Your task to perform on an android device: change notifications settings Image 0: 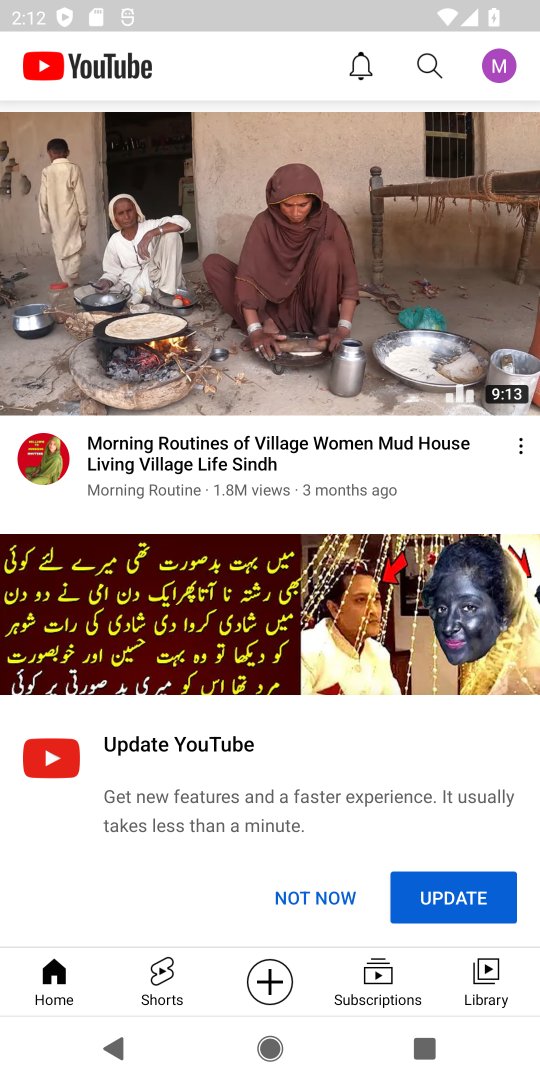
Step 0: press home button
Your task to perform on an android device: change notifications settings Image 1: 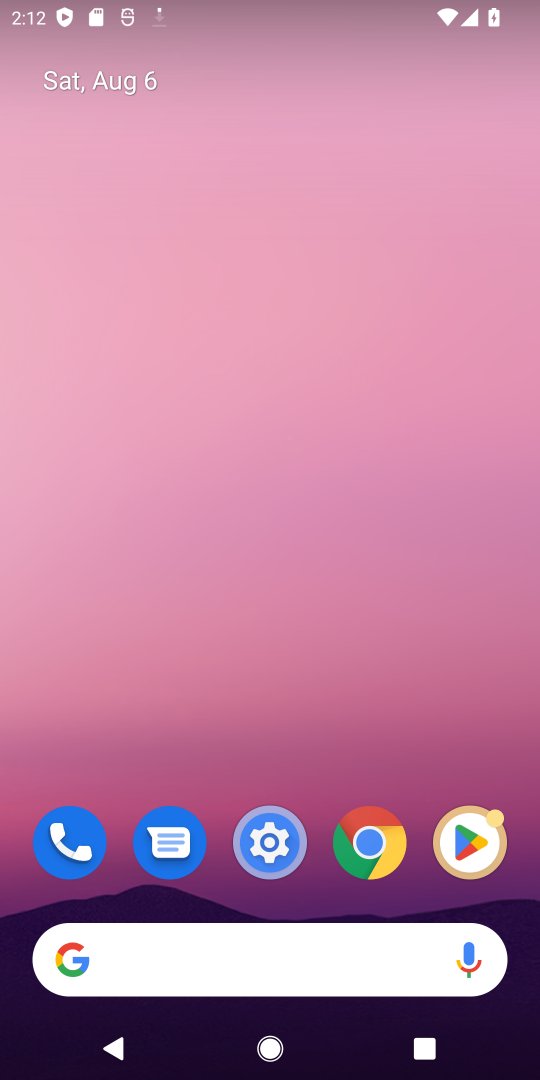
Step 1: drag from (262, 620) to (351, 8)
Your task to perform on an android device: change notifications settings Image 2: 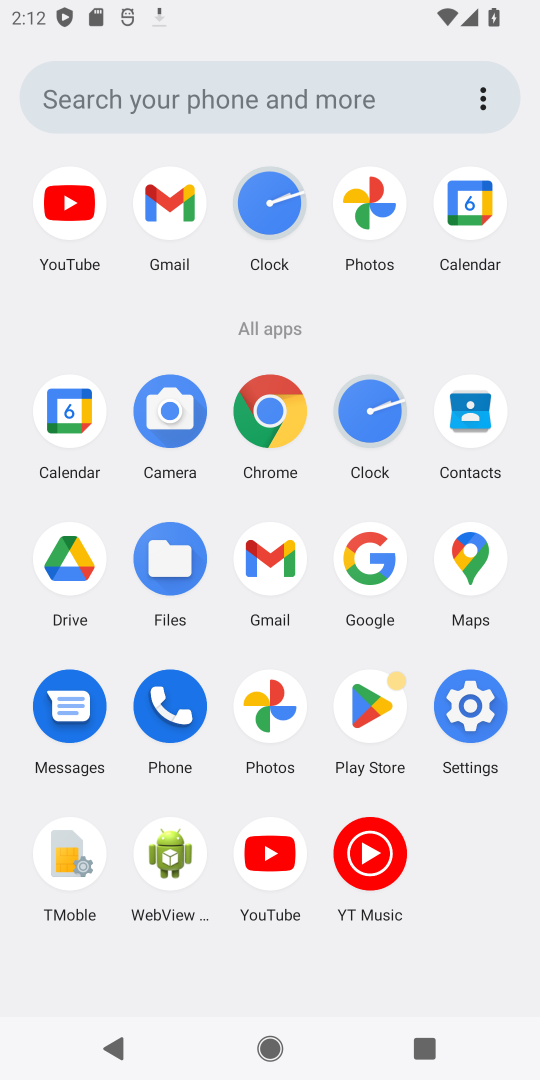
Step 2: click (464, 708)
Your task to perform on an android device: change notifications settings Image 3: 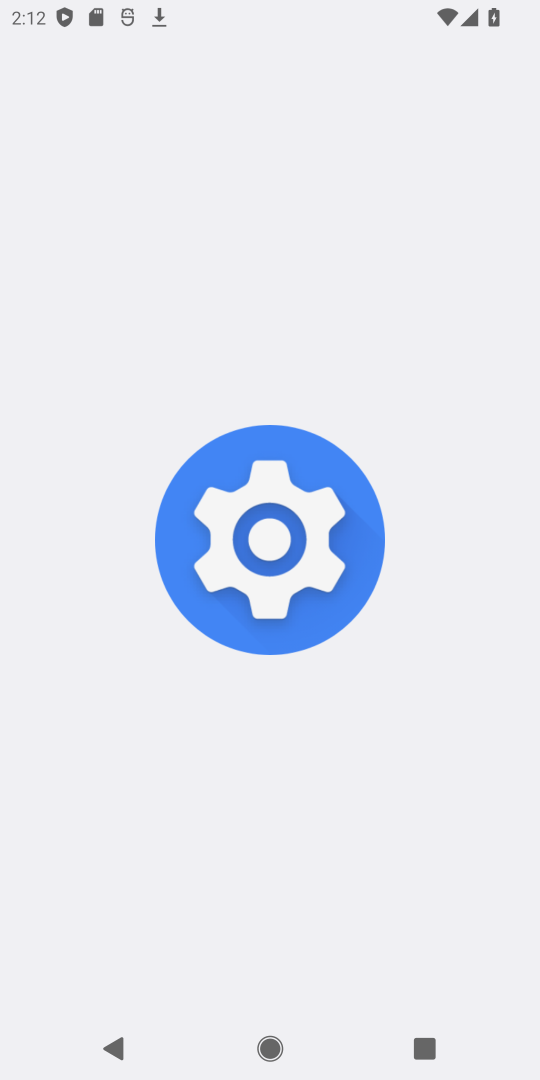
Step 3: click (451, 694)
Your task to perform on an android device: change notifications settings Image 4: 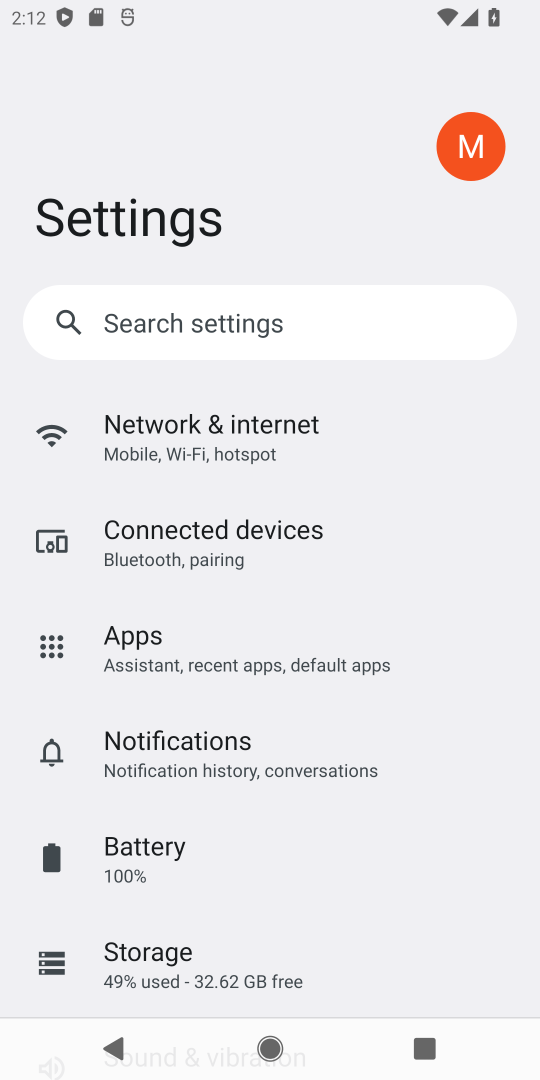
Step 4: click (227, 741)
Your task to perform on an android device: change notifications settings Image 5: 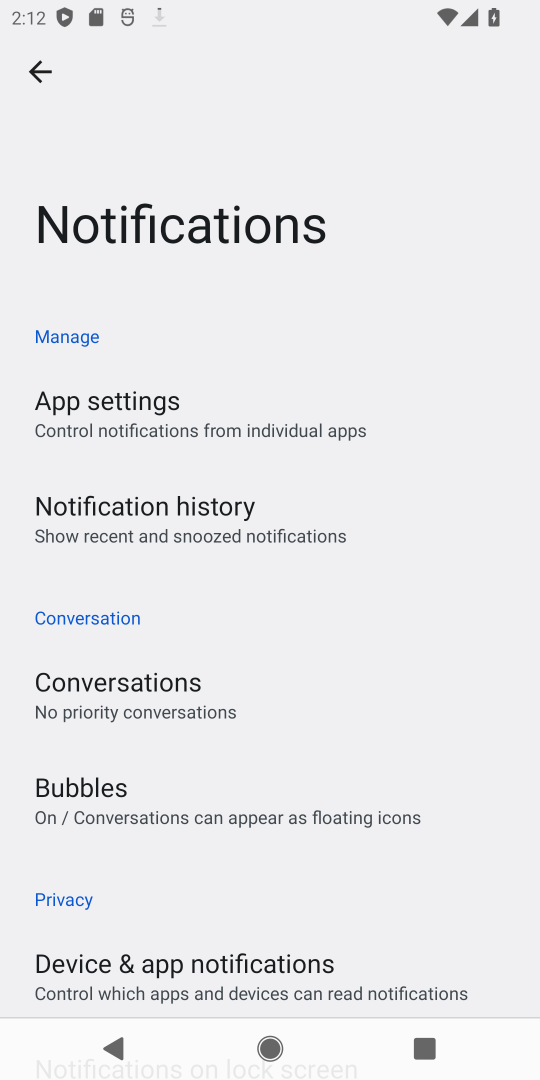
Step 5: drag from (273, 855) to (469, 217)
Your task to perform on an android device: change notifications settings Image 6: 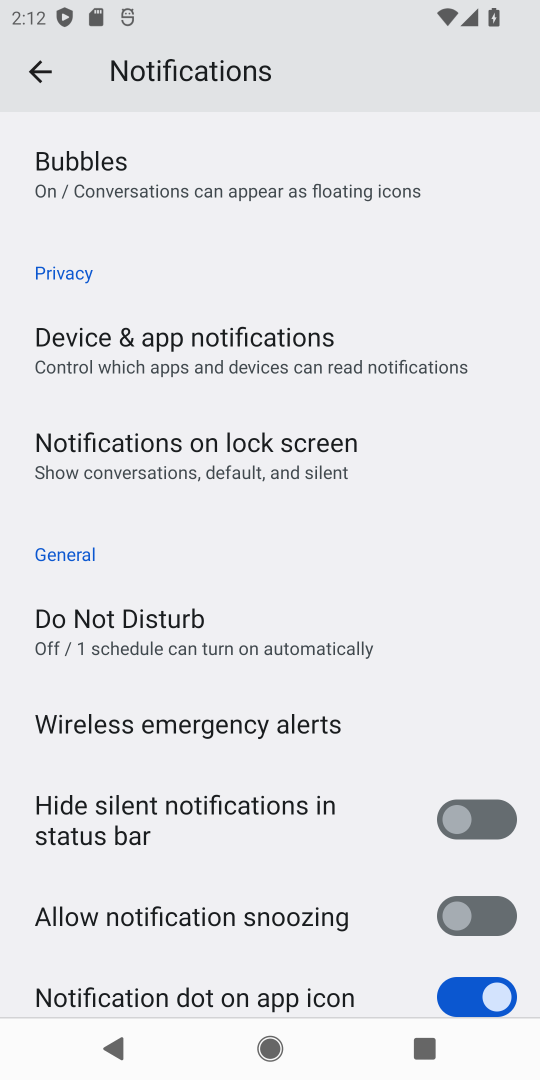
Step 6: drag from (231, 842) to (322, 114)
Your task to perform on an android device: change notifications settings Image 7: 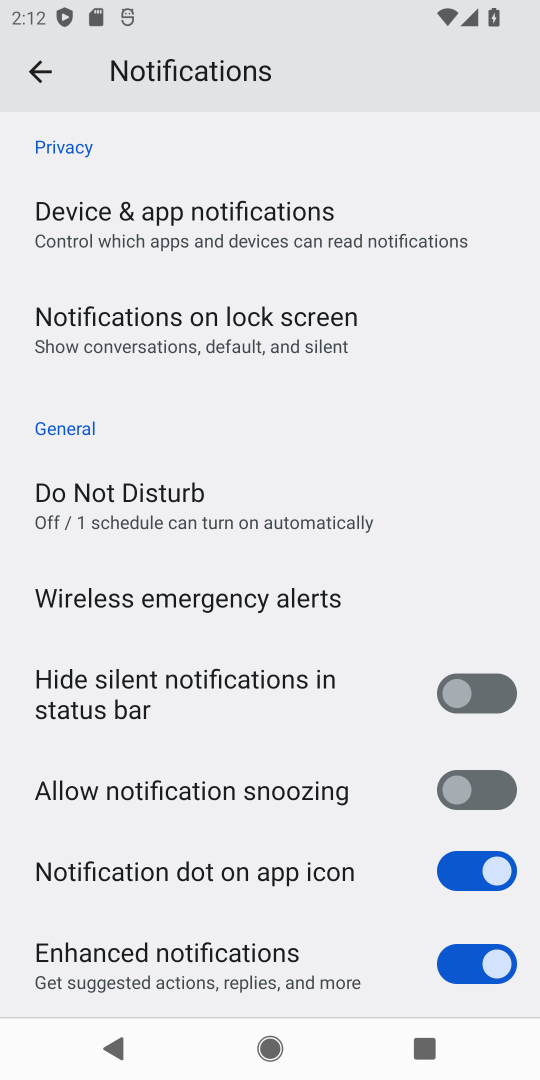
Step 7: click (250, 218)
Your task to perform on an android device: change notifications settings Image 8: 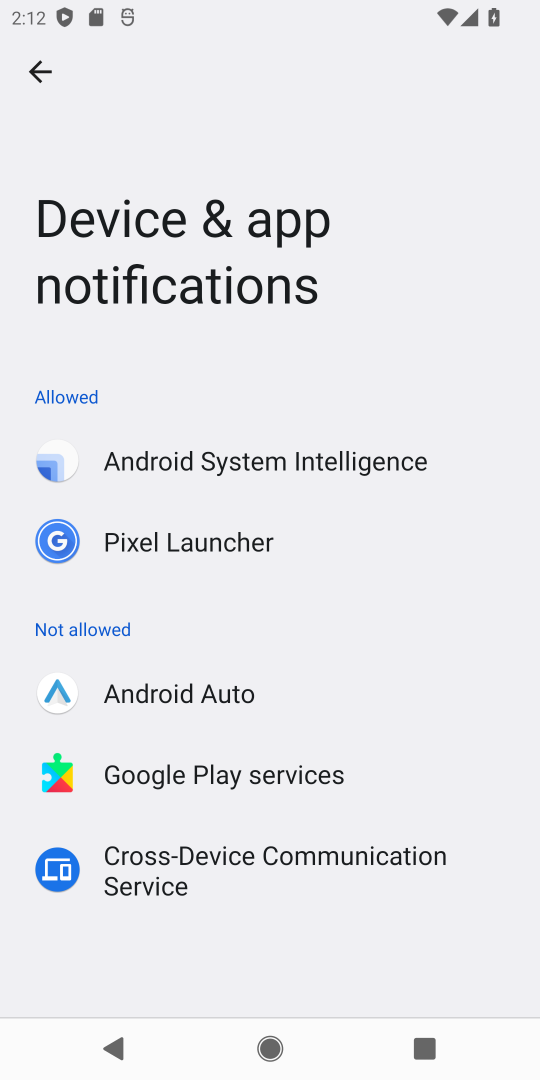
Step 8: drag from (290, 707) to (319, 132)
Your task to perform on an android device: change notifications settings Image 9: 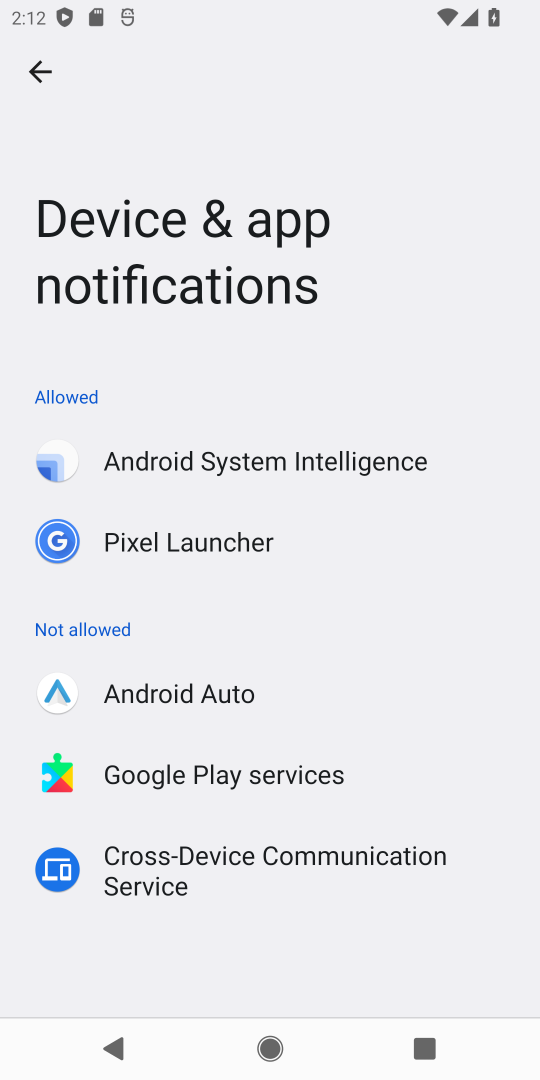
Step 9: click (31, 73)
Your task to perform on an android device: change notifications settings Image 10: 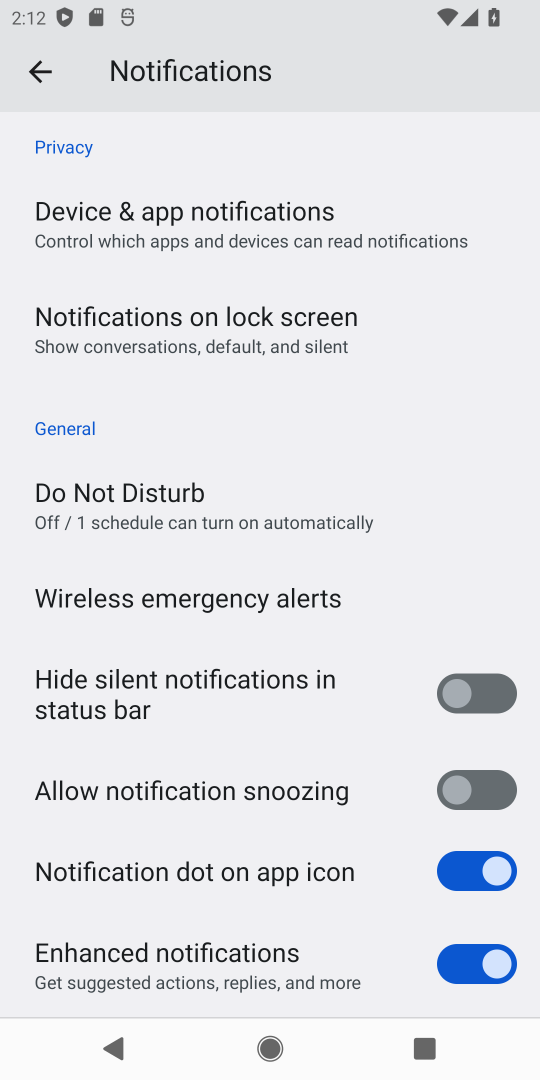
Step 10: drag from (283, 861) to (297, 200)
Your task to perform on an android device: change notifications settings Image 11: 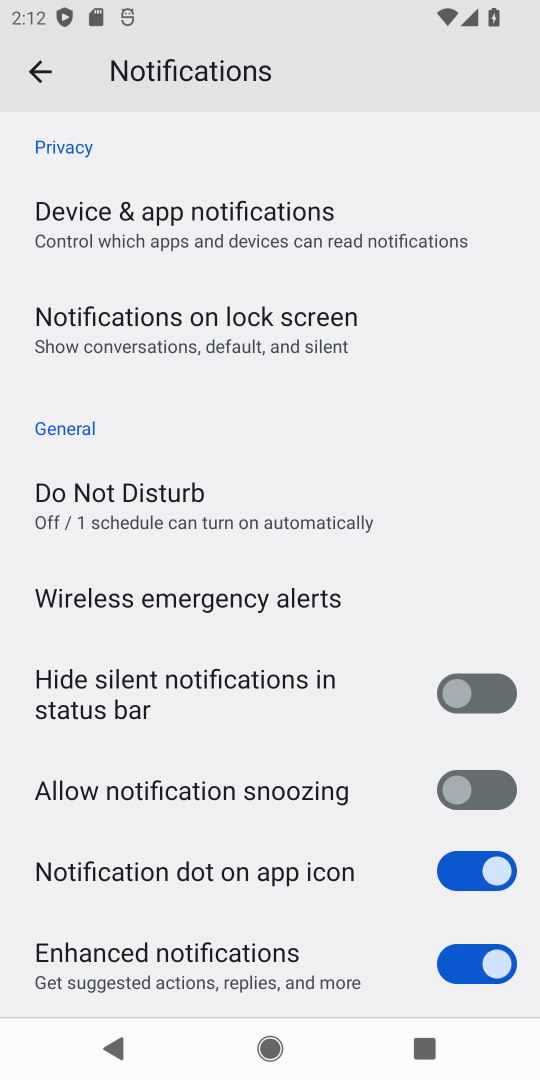
Step 11: click (483, 871)
Your task to perform on an android device: change notifications settings Image 12: 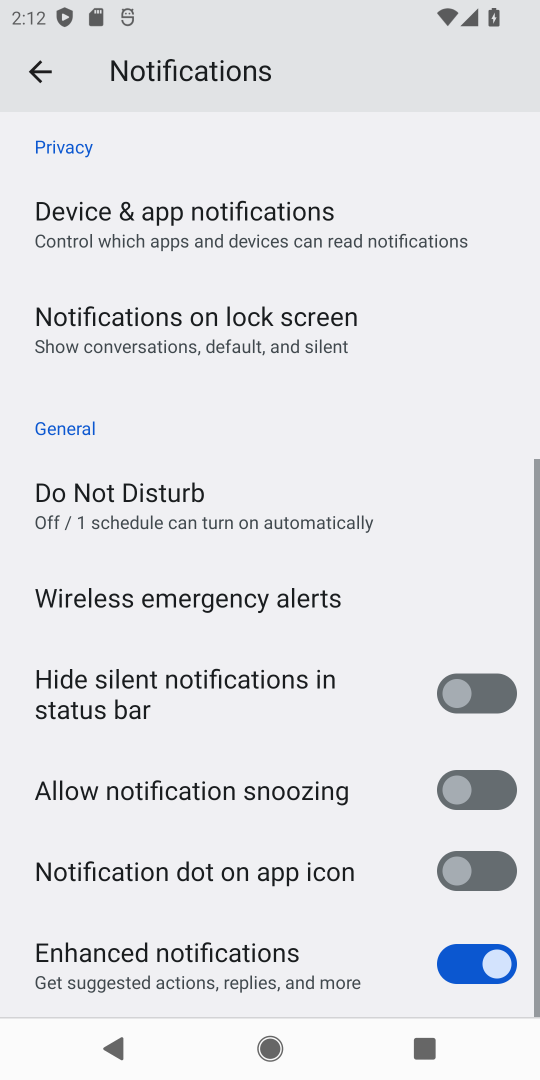
Step 12: task complete